Your task to perform on an android device: What's on my calendar tomorrow? Image 0: 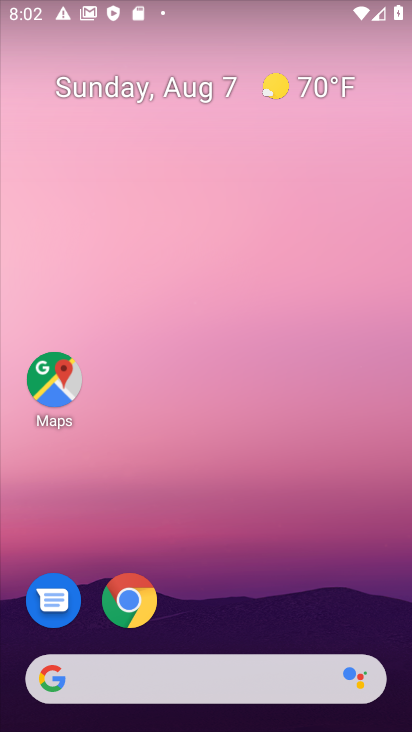
Step 0: drag from (191, 611) to (200, 49)
Your task to perform on an android device: What's on my calendar tomorrow? Image 1: 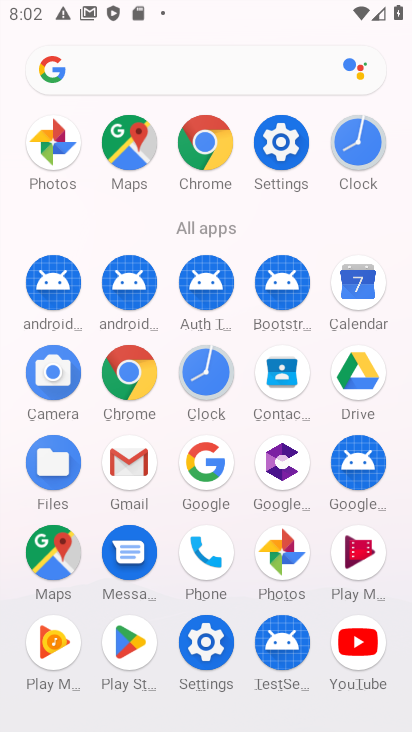
Step 1: click (357, 295)
Your task to perform on an android device: What's on my calendar tomorrow? Image 2: 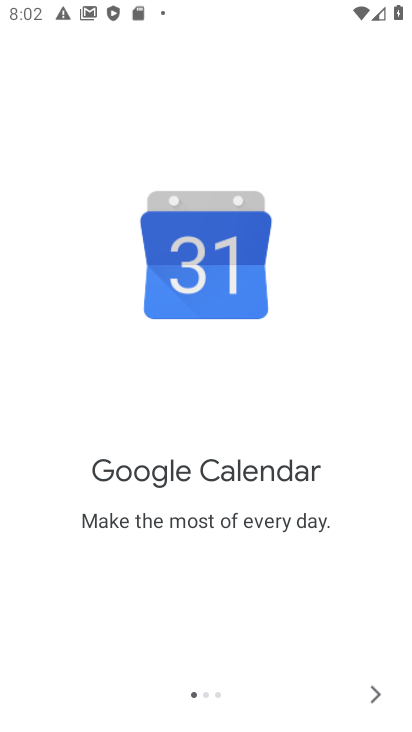
Step 2: click (376, 702)
Your task to perform on an android device: What's on my calendar tomorrow? Image 3: 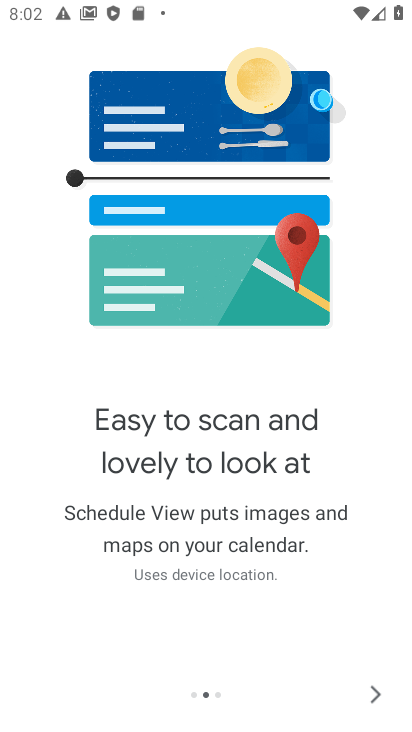
Step 3: click (376, 702)
Your task to perform on an android device: What's on my calendar tomorrow? Image 4: 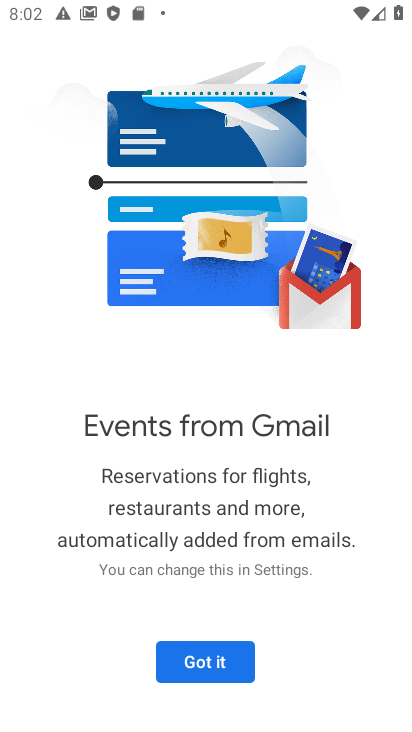
Step 4: click (200, 670)
Your task to perform on an android device: What's on my calendar tomorrow? Image 5: 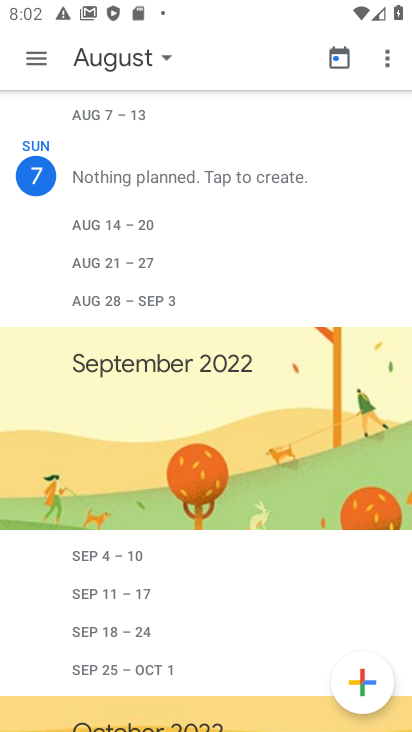
Step 5: click (98, 59)
Your task to perform on an android device: What's on my calendar tomorrow? Image 6: 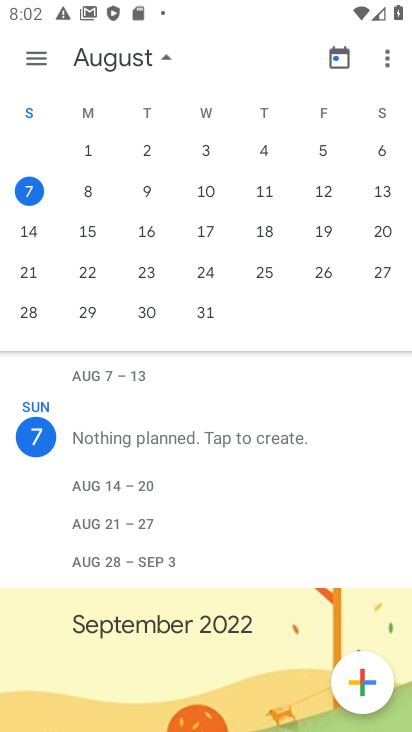
Step 6: click (82, 190)
Your task to perform on an android device: What's on my calendar tomorrow? Image 7: 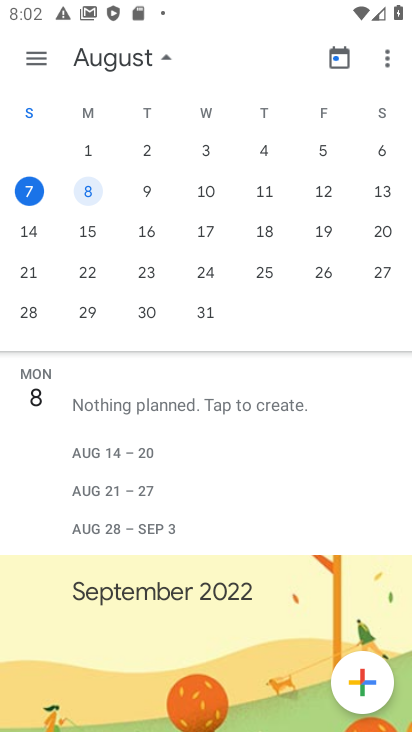
Step 7: task complete